Your task to perform on an android device: Search for sushi restaurants on Maps Image 0: 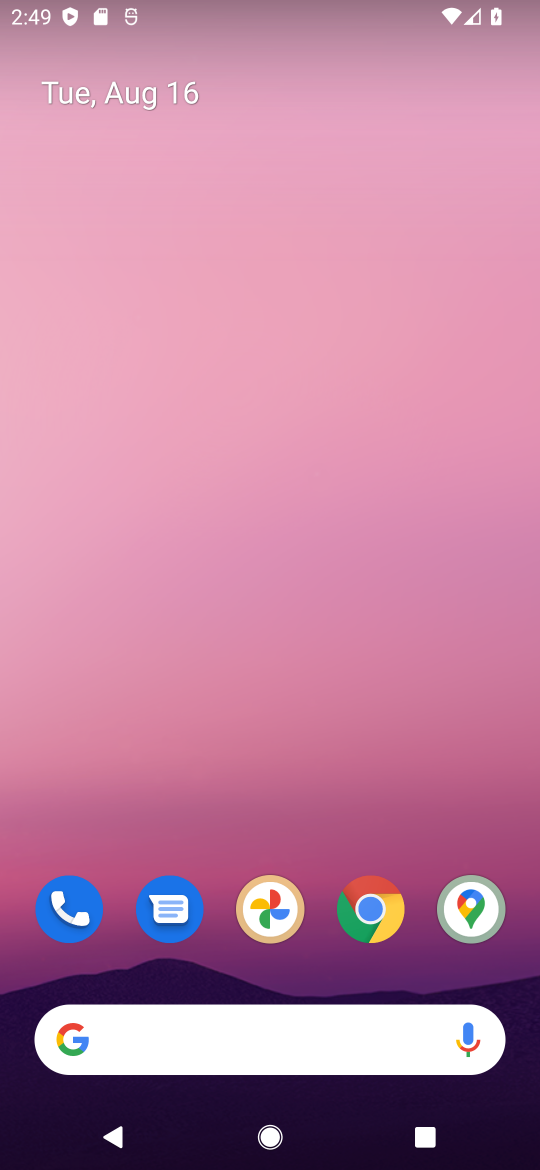
Step 0: click (451, 909)
Your task to perform on an android device: Search for sushi restaurants on Maps Image 1: 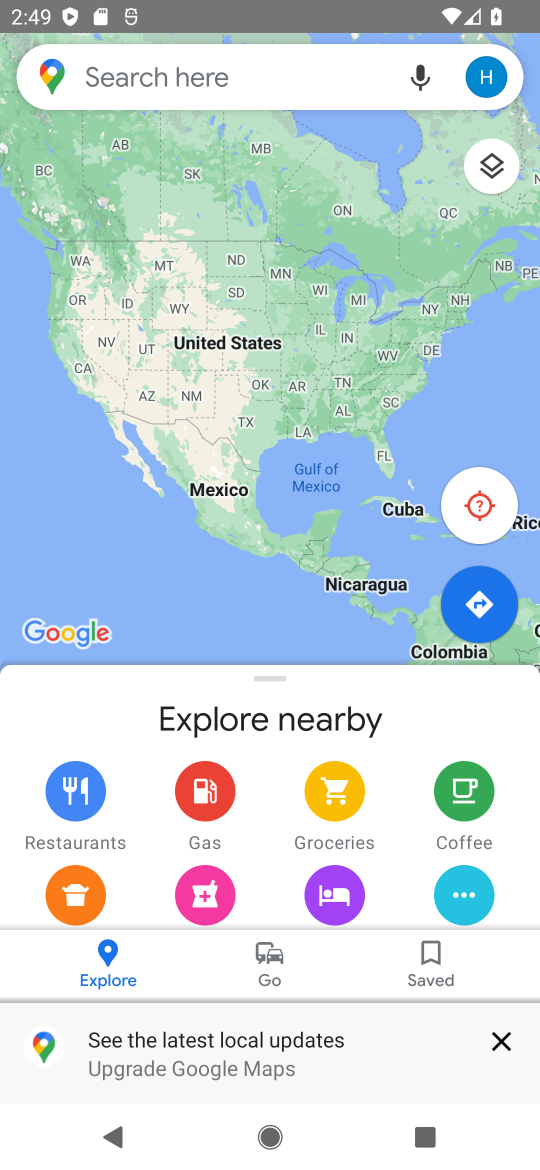
Step 1: click (202, 65)
Your task to perform on an android device: Search for sushi restaurants on Maps Image 2: 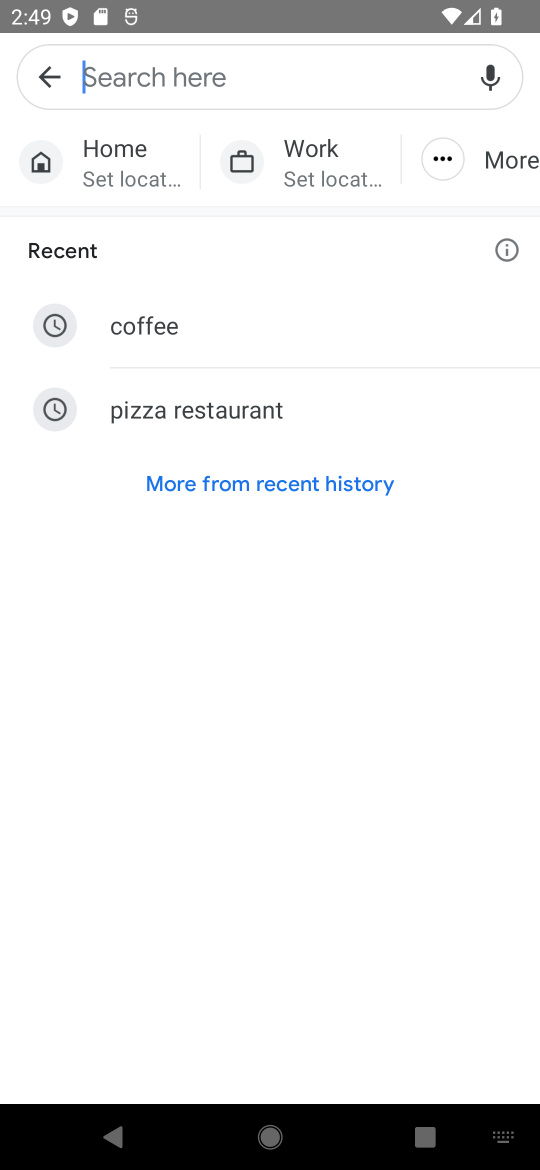
Step 2: type "sushi restaurants"
Your task to perform on an android device: Search for sushi restaurants on Maps Image 3: 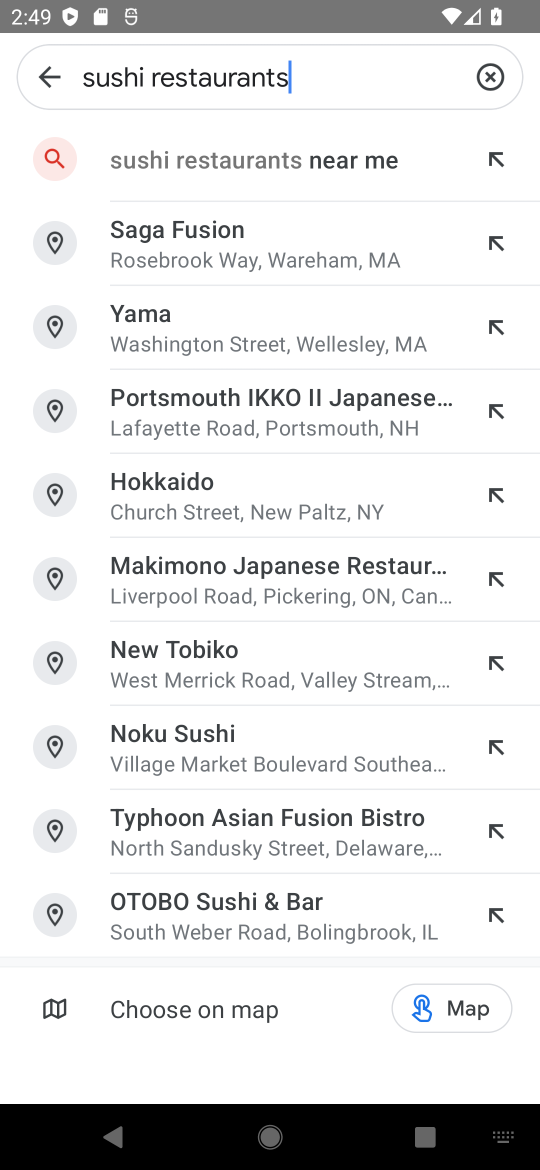
Step 3: click (359, 164)
Your task to perform on an android device: Search for sushi restaurants on Maps Image 4: 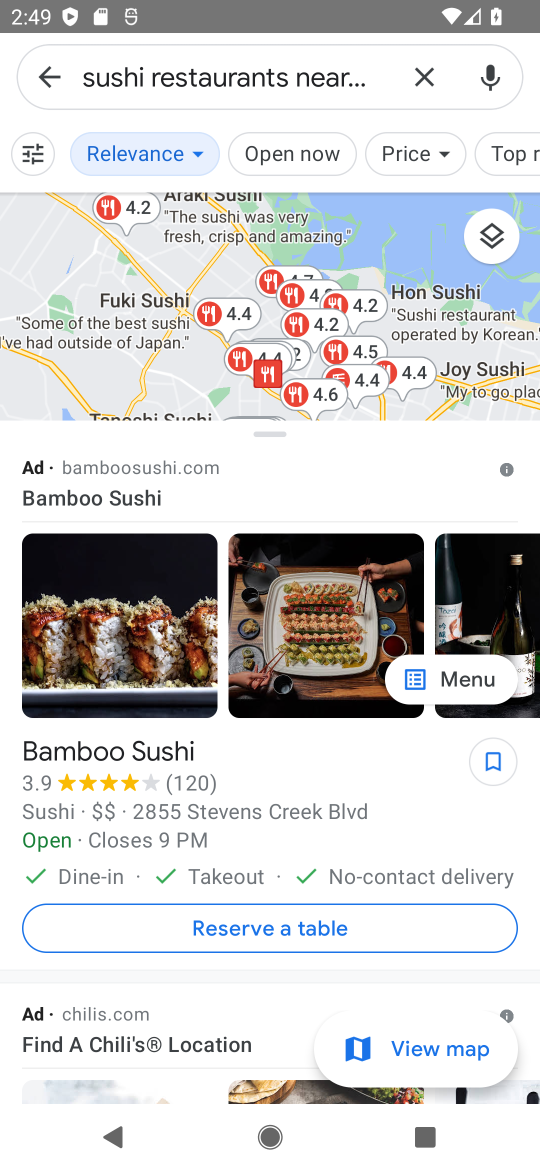
Step 4: task complete